Your task to perform on an android device: set the stopwatch Image 0: 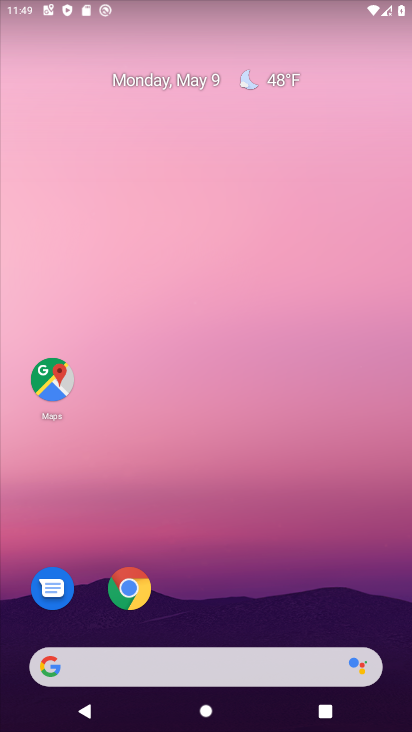
Step 0: drag from (203, 596) to (320, 50)
Your task to perform on an android device: set the stopwatch Image 1: 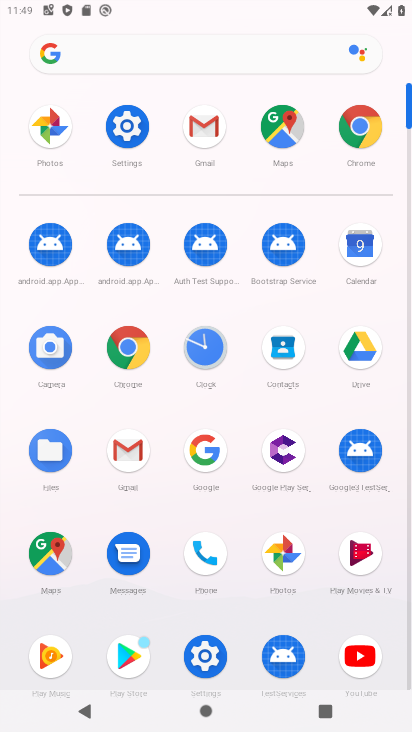
Step 1: click (186, 351)
Your task to perform on an android device: set the stopwatch Image 2: 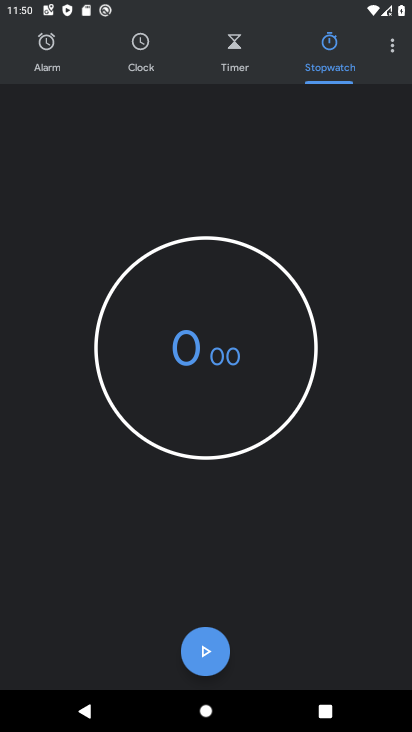
Step 2: task complete